Your task to perform on an android device: set default search engine in the chrome app Image 0: 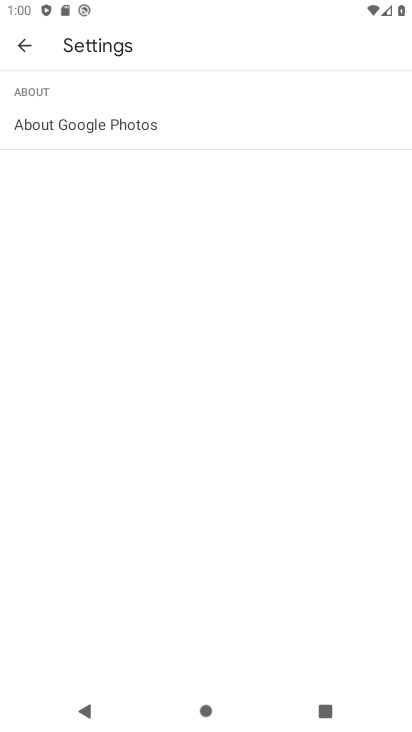
Step 0: click (251, 608)
Your task to perform on an android device: set default search engine in the chrome app Image 1: 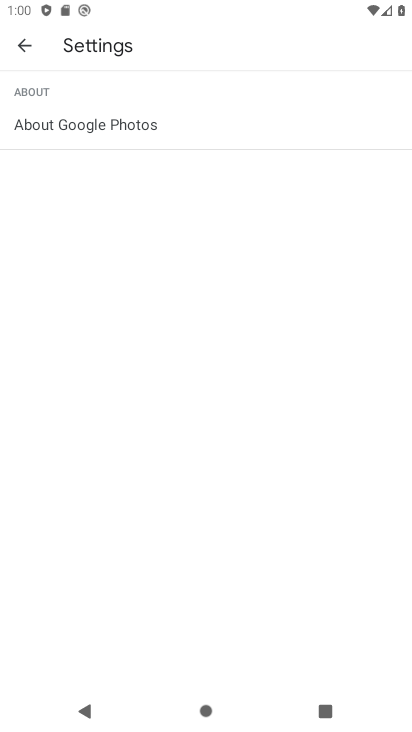
Step 1: press home button
Your task to perform on an android device: set default search engine in the chrome app Image 2: 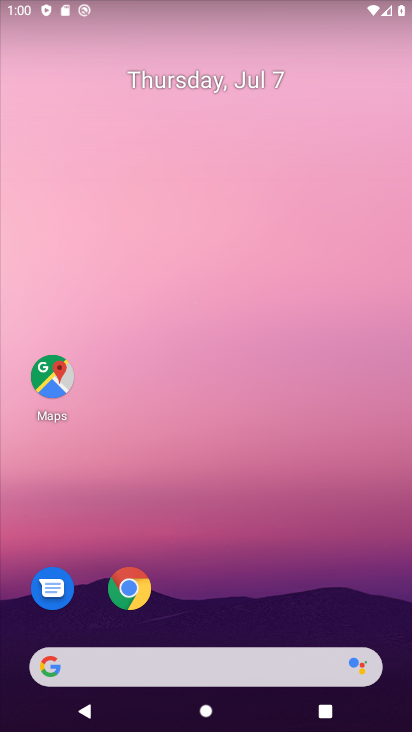
Step 2: drag from (258, 650) to (243, 347)
Your task to perform on an android device: set default search engine in the chrome app Image 3: 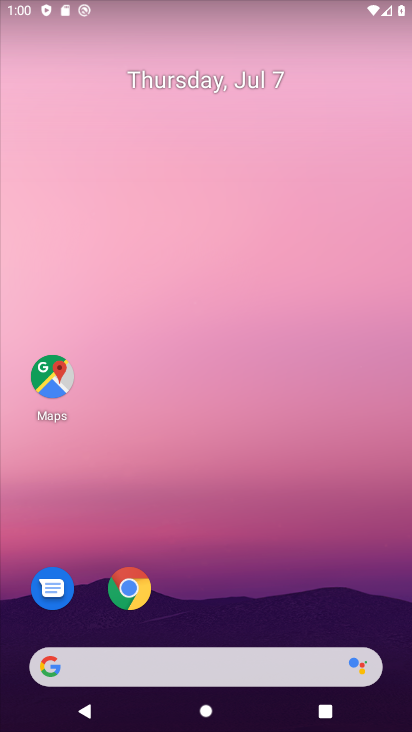
Step 3: drag from (249, 681) to (250, 357)
Your task to perform on an android device: set default search engine in the chrome app Image 4: 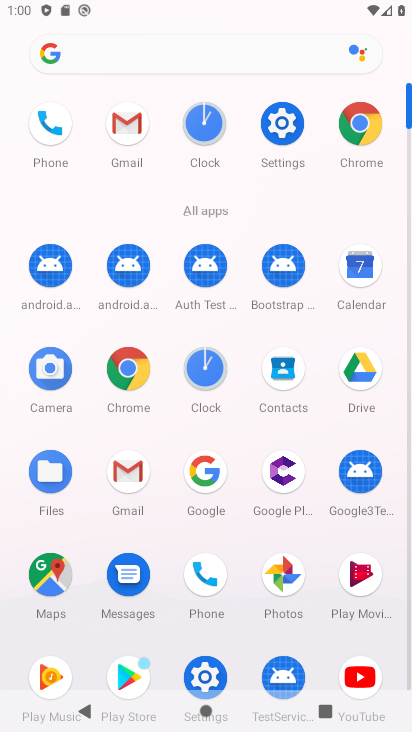
Step 4: click (349, 123)
Your task to perform on an android device: set default search engine in the chrome app Image 5: 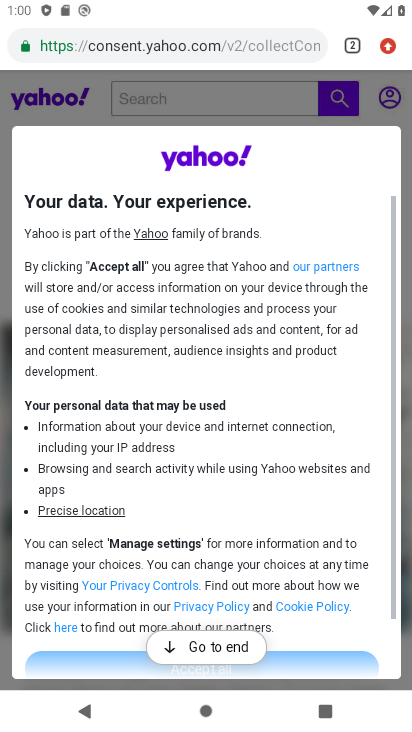
Step 5: click (391, 54)
Your task to perform on an android device: set default search engine in the chrome app Image 6: 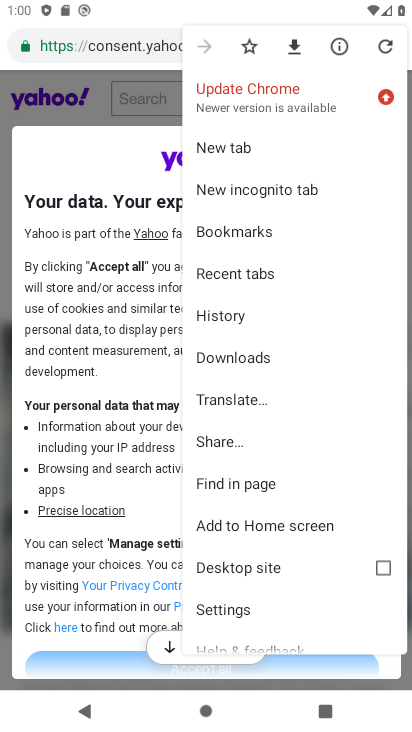
Step 6: click (230, 137)
Your task to perform on an android device: set default search engine in the chrome app Image 7: 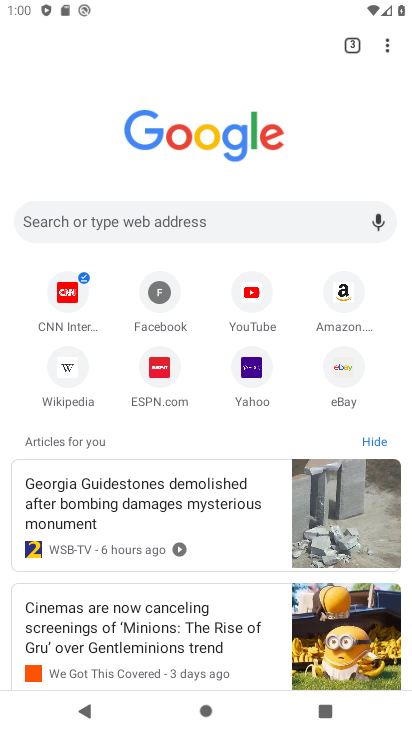
Step 7: click (375, 42)
Your task to perform on an android device: set default search engine in the chrome app Image 8: 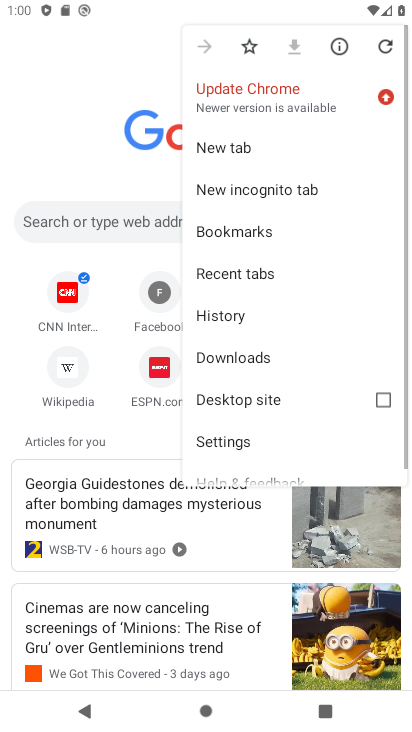
Step 8: click (247, 438)
Your task to perform on an android device: set default search engine in the chrome app Image 9: 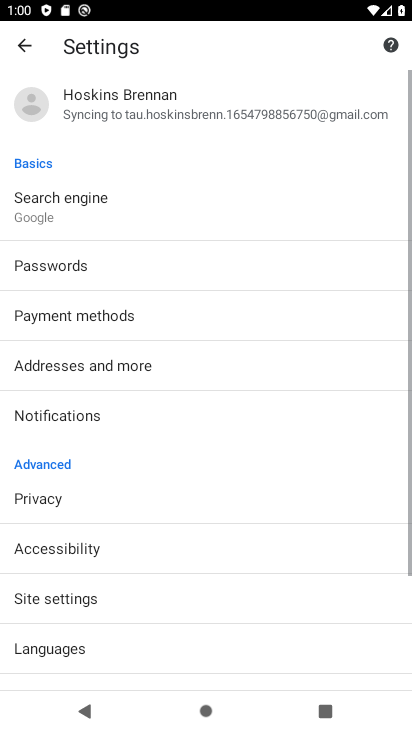
Step 9: click (104, 209)
Your task to perform on an android device: set default search engine in the chrome app Image 10: 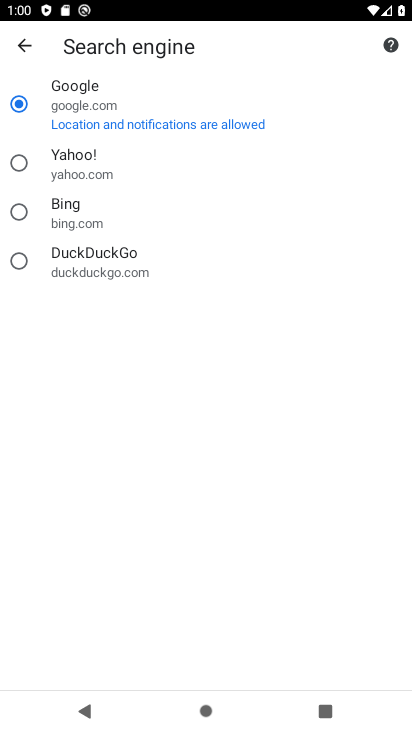
Step 10: click (104, 209)
Your task to perform on an android device: set default search engine in the chrome app Image 11: 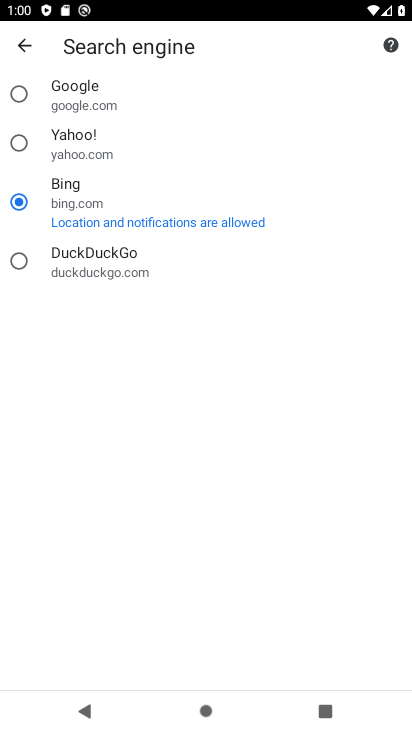
Step 11: task complete